Your task to perform on an android device: Go to Amazon Image 0: 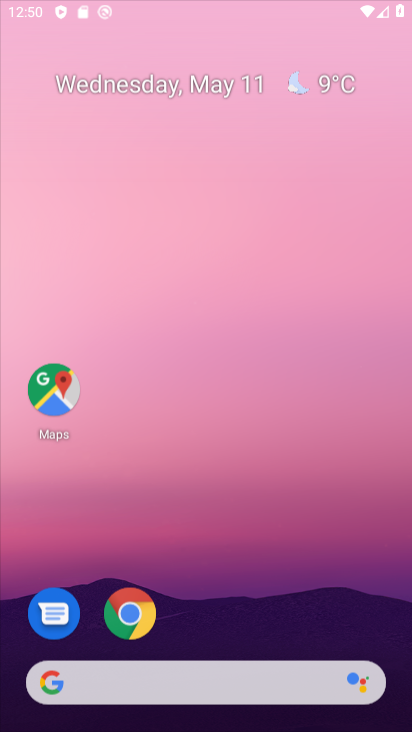
Step 0: drag from (300, 577) to (268, 141)
Your task to perform on an android device: Go to Amazon Image 1: 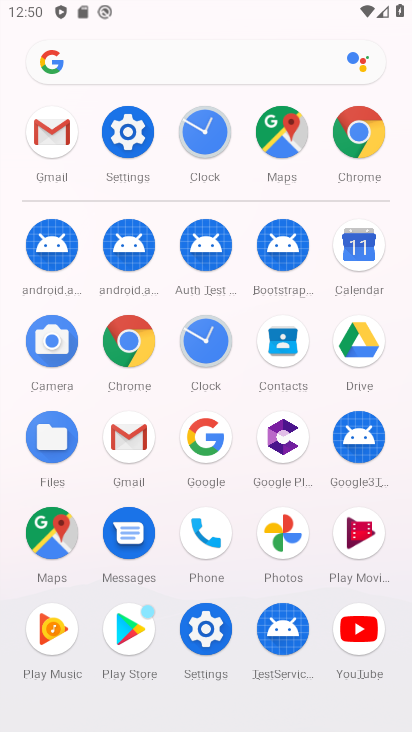
Step 1: click (373, 157)
Your task to perform on an android device: Go to Amazon Image 2: 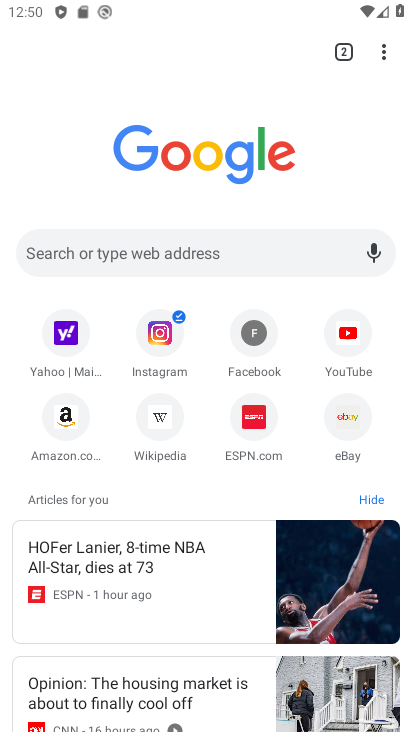
Step 2: click (72, 412)
Your task to perform on an android device: Go to Amazon Image 3: 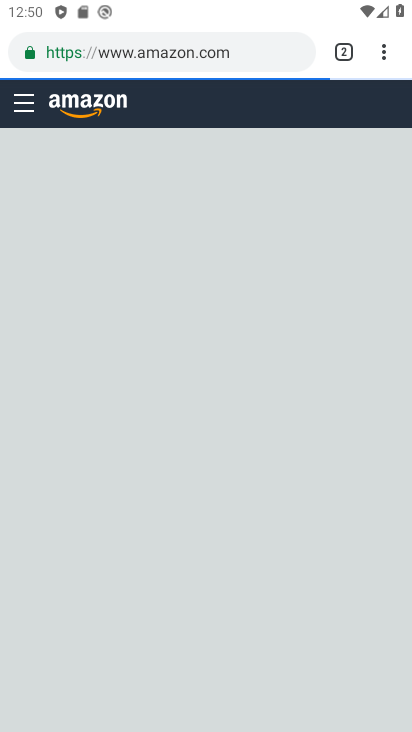
Step 3: task complete